Your task to perform on an android device: turn off notifications settings in the gmail app Image 0: 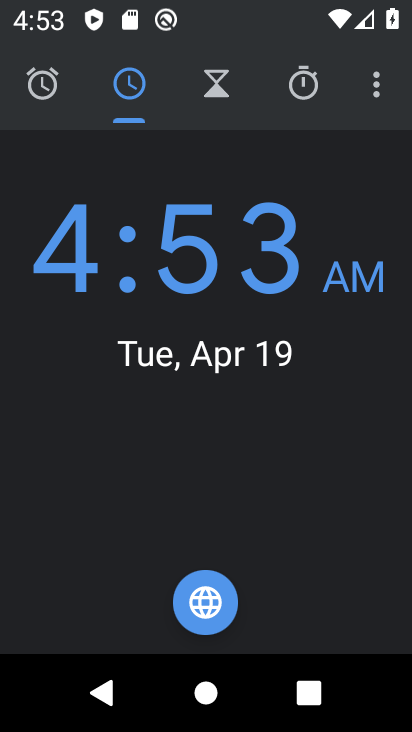
Step 0: press home button
Your task to perform on an android device: turn off notifications settings in the gmail app Image 1: 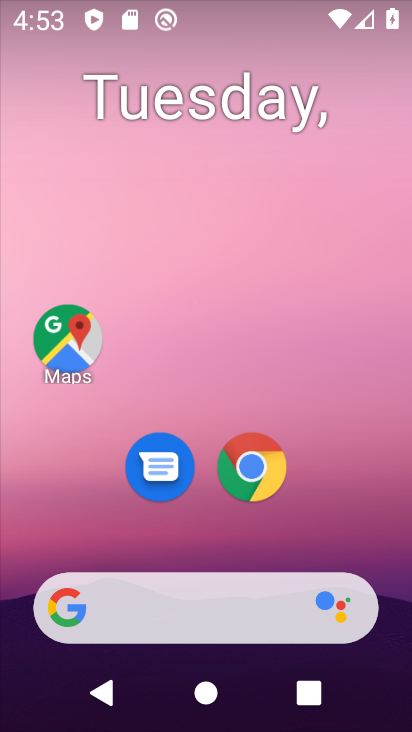
Step 1: drag from (348, 423) to (337, 135)
Your task to perform on an android device: turn off notifications settings in the gmail app Image 2: 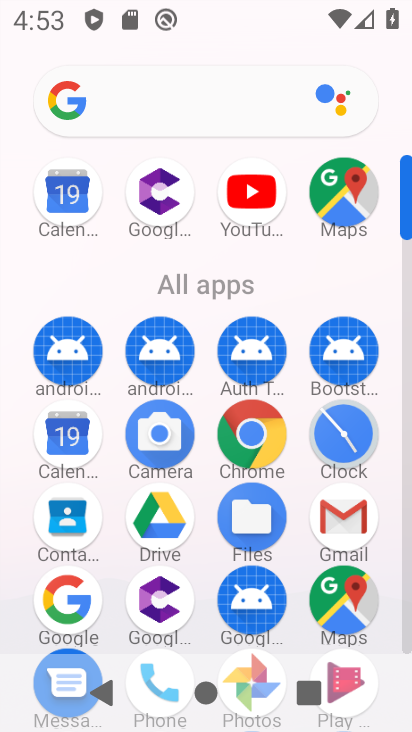
Step 2: click (334, 522)
Your task to perform on an android device: turn off notifications settings in the gmail app Image 3: 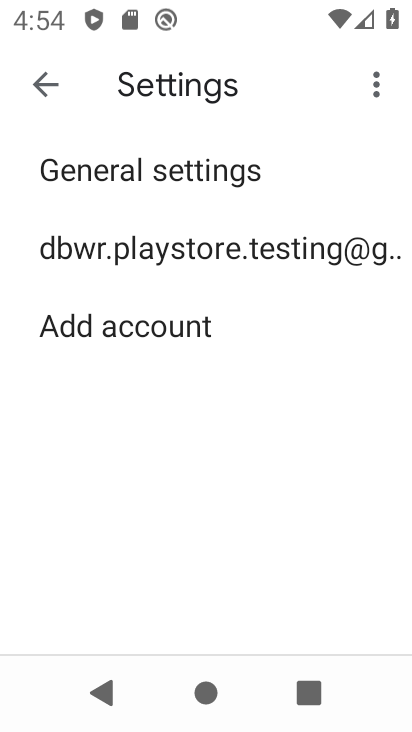
Step 3: click (213, 256)
Your task to perform on an android device: turn off notifications settings in the gmail app Image 4: 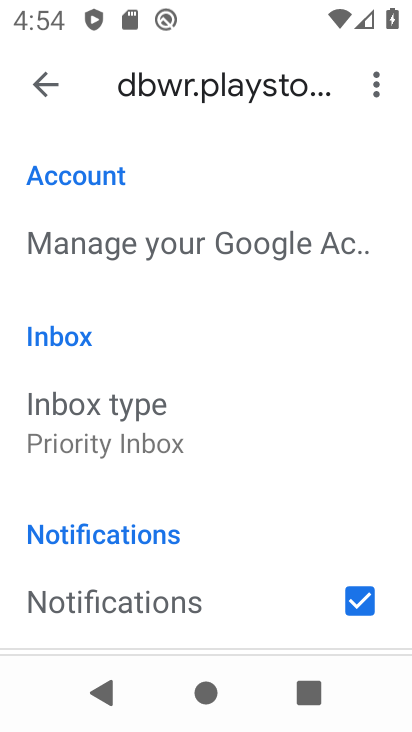
Step 4: click (359, 604)
Your task to perform on an android device: turn off notifications settings in the gmail app Image 5: 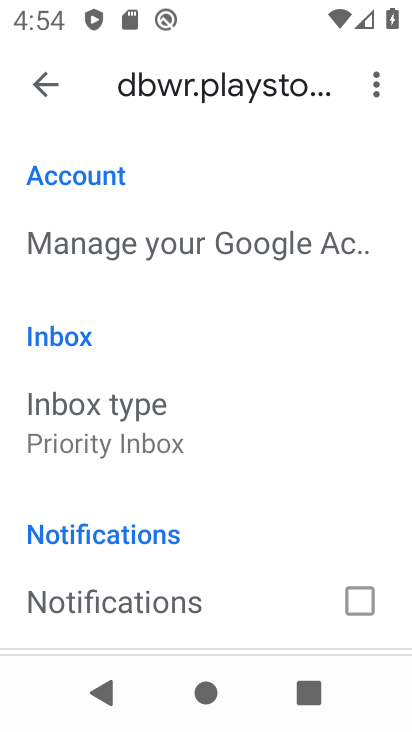
Step 5: task complete